Your task to perform on an android device: all mails in gmail Image 0: 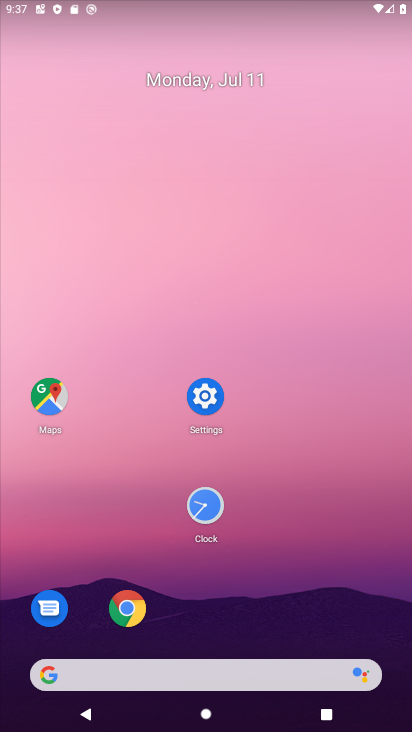
Step 0: drag from (379, 631) to (384, 121)
Your task to perform on an android device: all mails in gmail Image 1: 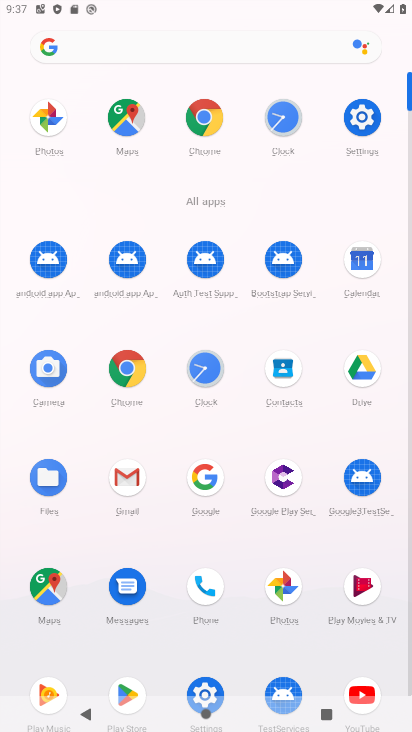
Step 1: click (114, 481)
Your task to perform on an android device: all mails in gmail Image 2: 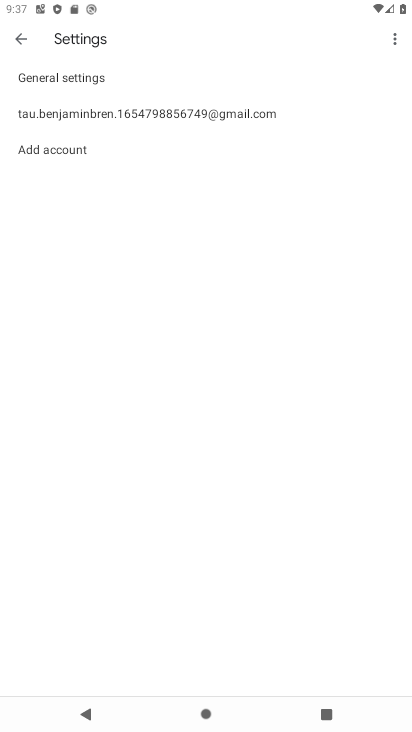
Step 2: click (76, 109)
Your task to perform on an android device: all mails in gmail Image 3: 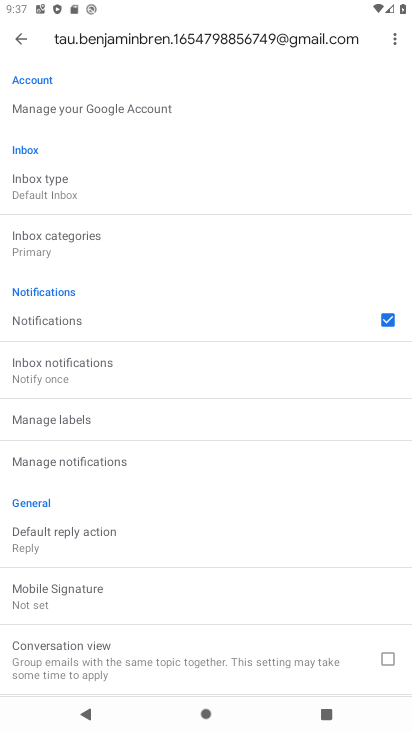
Step 3: click (23, 39)
Your task to perform on an android device: all mails in gmail Image 4: 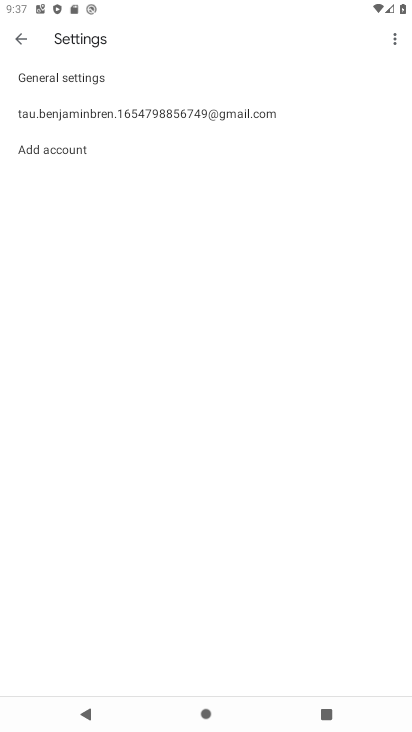
Step 4: click (23, 39)
Your task to perform on an android device: all mails in gmail Image 5: 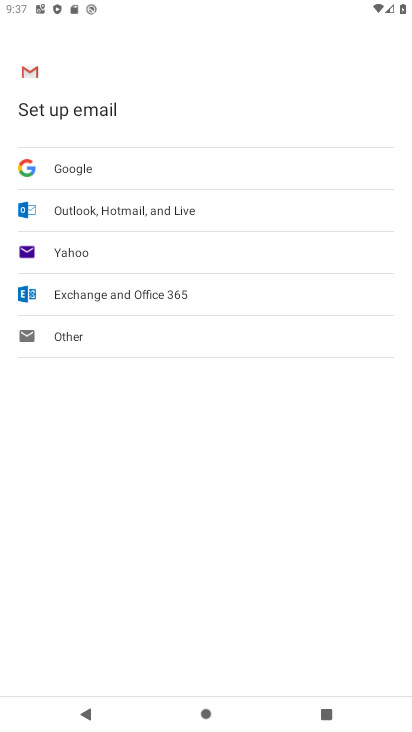
Step 5: press back button
Your task to perform on an android device: all mails in gmail Image 6: 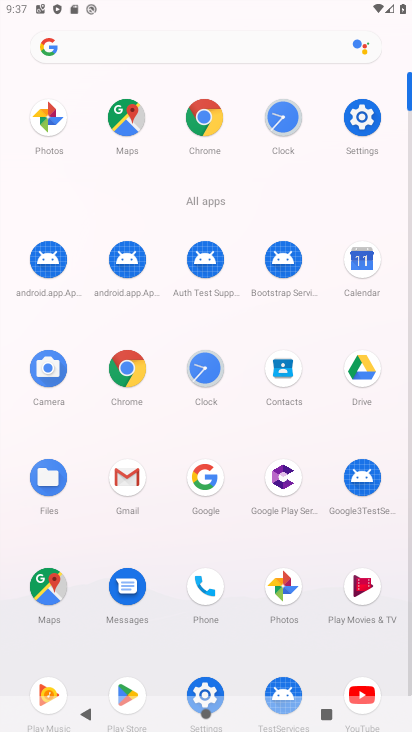
Step 6: click (133, 474)
Your task to perform on an android device: all mails in gmail Image 7: 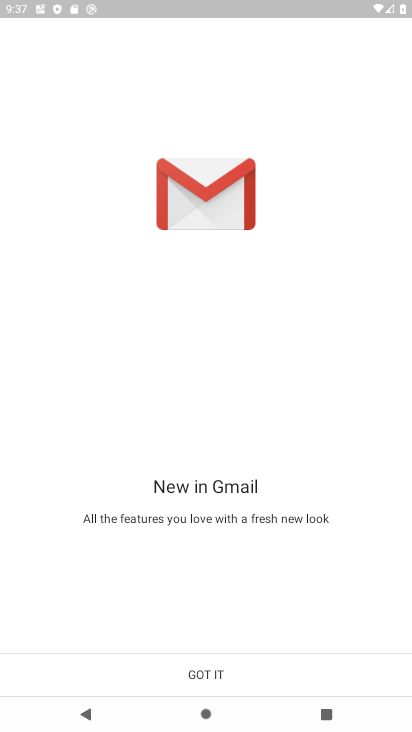
Step 7: click (203, 674)
Your task to perform on an android device: all mails in gmail Image 8: 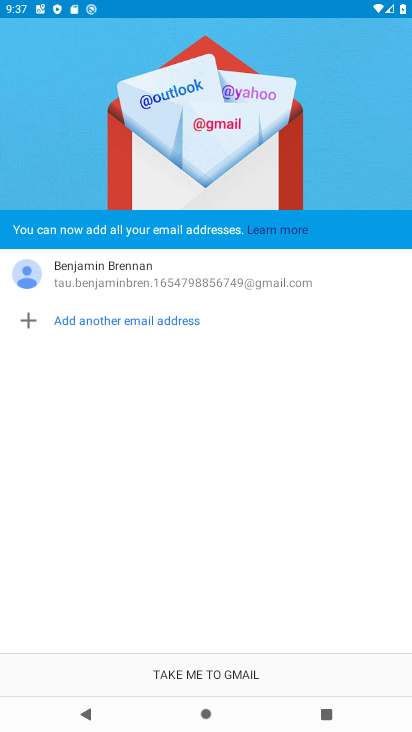
Step 8: click (203, 674)
Your task to perform on an android device: all mails in gmail Image 9: 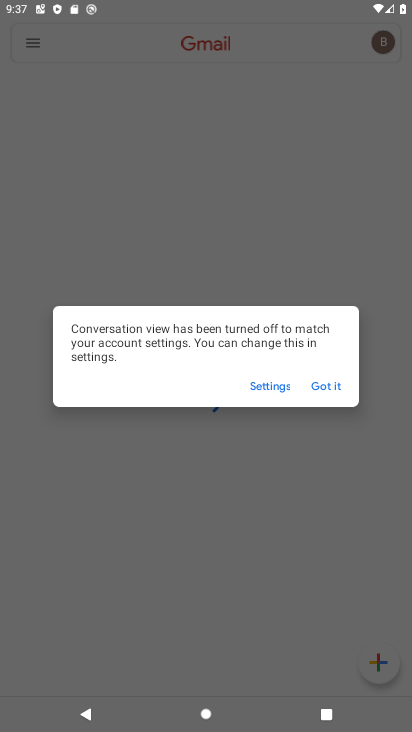
Step 9: click (319, 382)
Your task to perform on an android device: all mails in gmail Image 10: 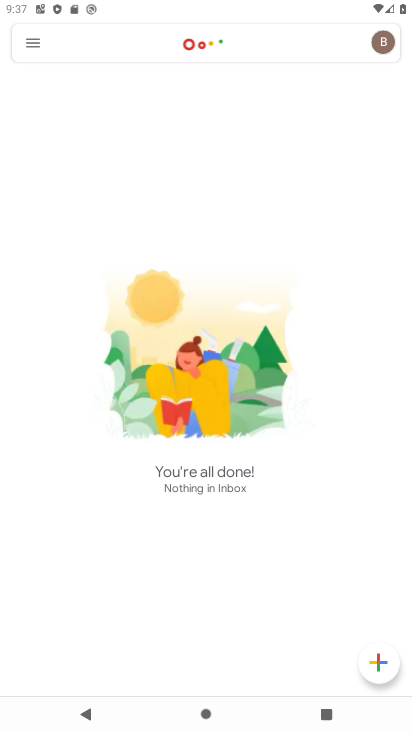
Step 10: click (35, 40)
Your task to perform on an android device: all mails in gmail Image 11: 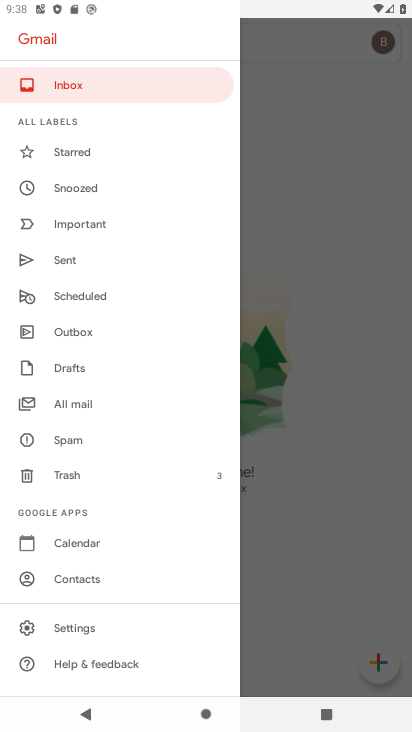
Step 11: click (80, 396)
Your task to perform on an android device: all mails in gmail Image 12: 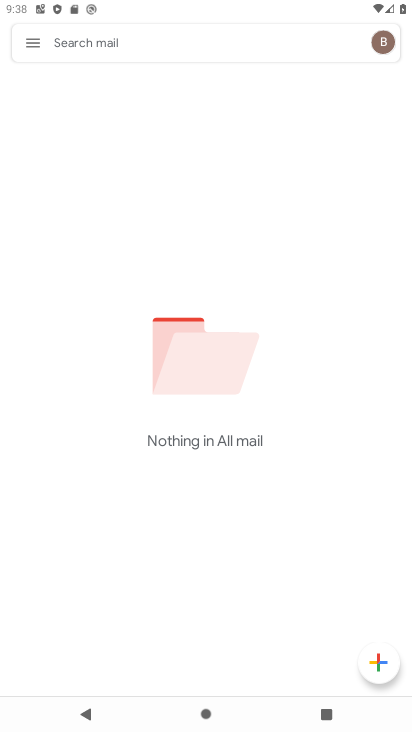
Step 12: task complete